Your task to perform on an android device: move an email to a new category in the gmail app Image 0: 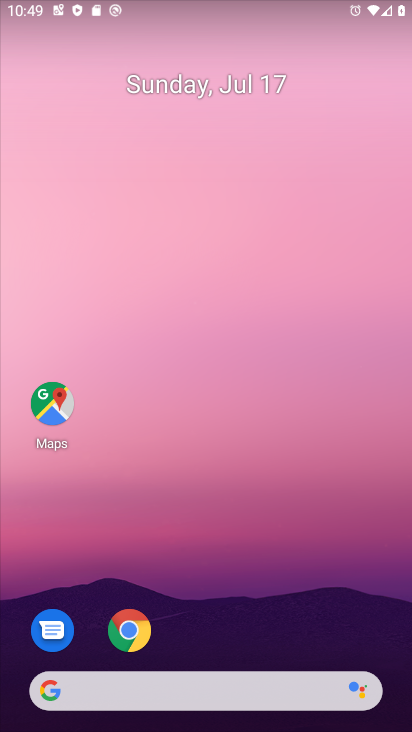
Step 0: drag from (352, 623) to (354, 142)
Your task to perform on an android device: move an email to a new category in the gmail app Image 1: 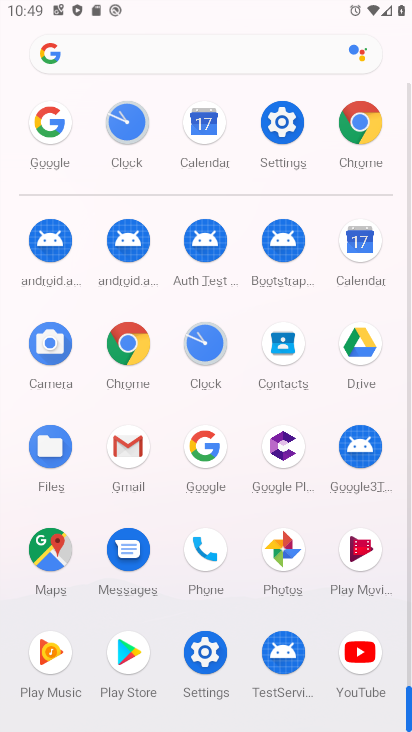
Step 1: click (132, 449)
Your task to perform on an android device: move an email to a new category in the gmail app Image 2: 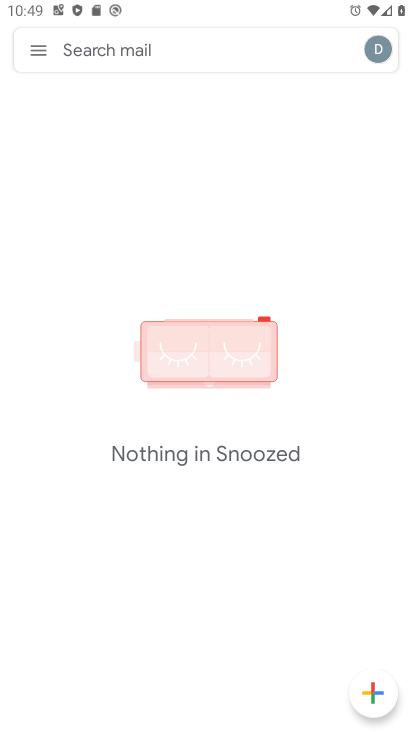
Step 2: click (36, 42)
Your task to perform on an android device: move an email to a new category in the gmail app Image 3: 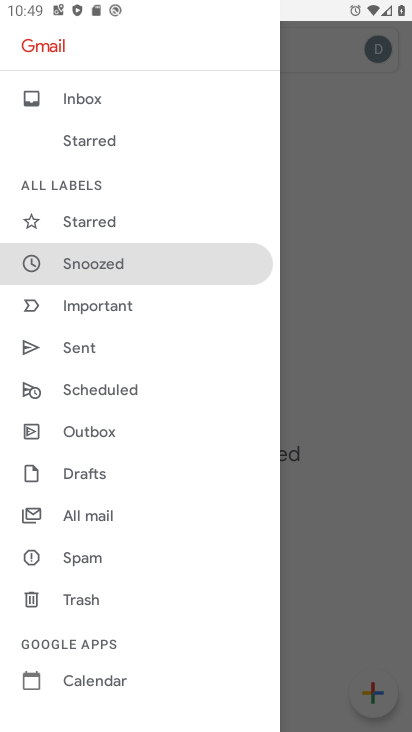
Step 3: drag from (182, 312) to (185, 444)
Your task to perform on an android device: move an email to a new category in the gmail app Image 4: 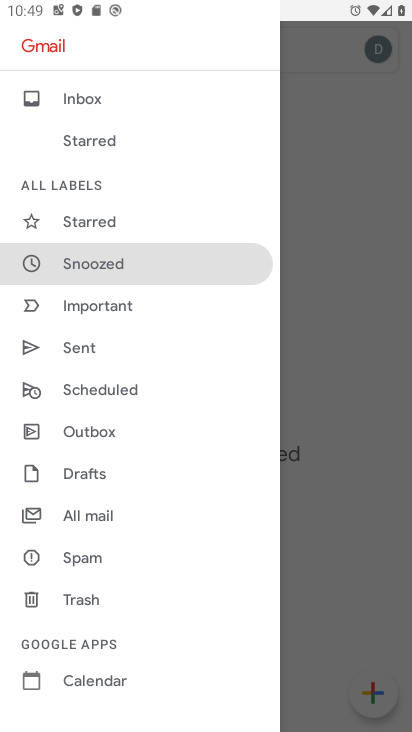
Step 4: click (119, 516)
Your task to perform on an android device: move an email to a new category in the gmail app Image 5: 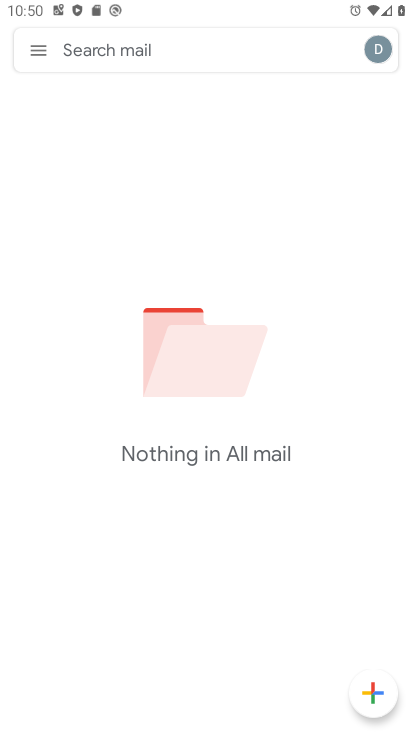
Step 5: task complete